Your task to perform on an android device: toggle javascript in the chrome app Image 0: 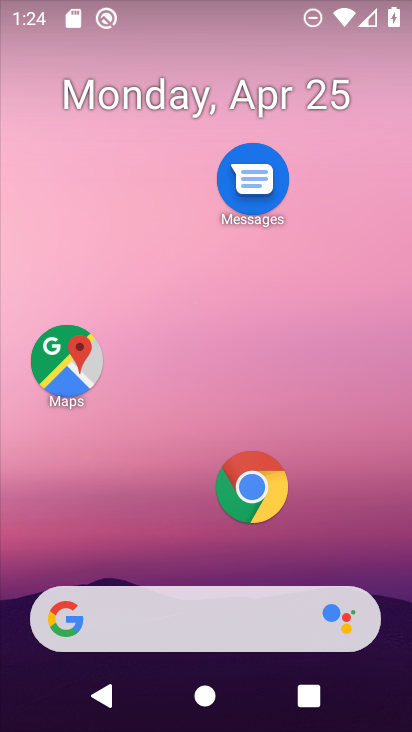
Step 0: drag from (270, 472) to (380, 10)
Your task to perform on an android device: toggle javascript in the chrome app Image 1: 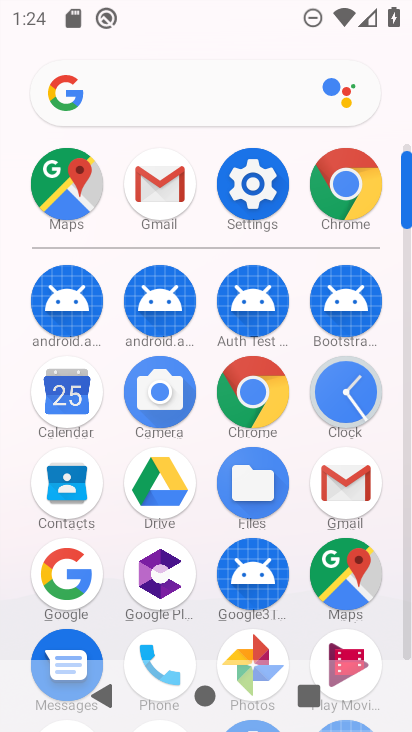
Step 1: click (274, 382)
Your task to perform on an android device: toggle javascript in the chrome app Image 2: 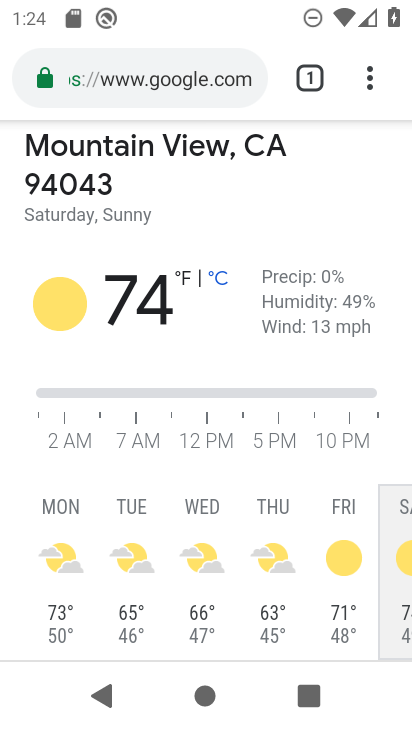
Step 2: press home button
Your task to perform on an android device: toggle javascript in the chrome app Image 3: 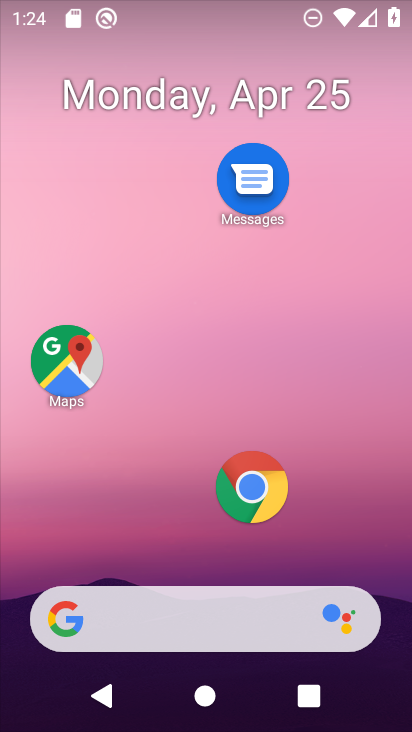
Step 3: drag from (363, 576) to (288, 0)
Your task to perform on an android device: toggle javascript in the chrome app Image 4: 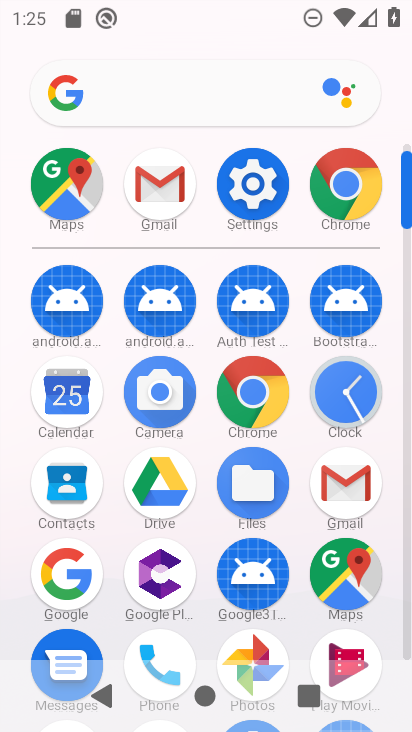
Step 4: click (272, 388)
Your task to perform on an android device: toggle javascript in the chrome app Image 5: 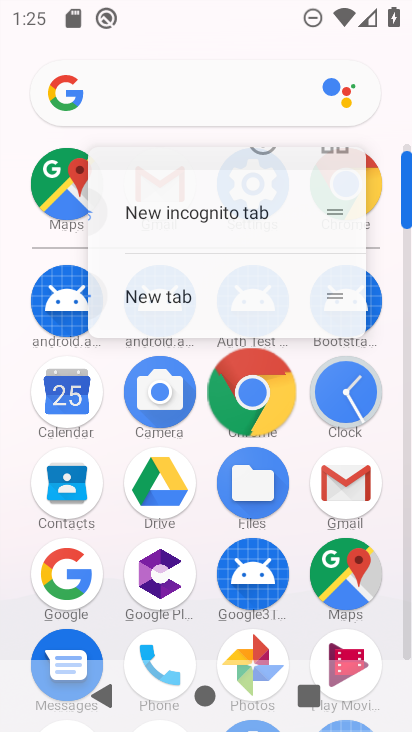
Step 5: click (272, 388)
Your task to perform on an android device: toggle javascript in the chrome app Image 6: 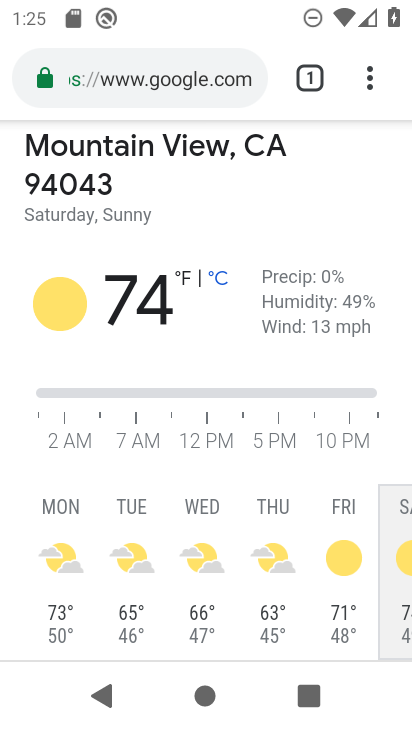
Step 6: drag from (366, 91) to (221, 561)
Your task to perform on an android device: toggle javascript in the chrome app Image 7: 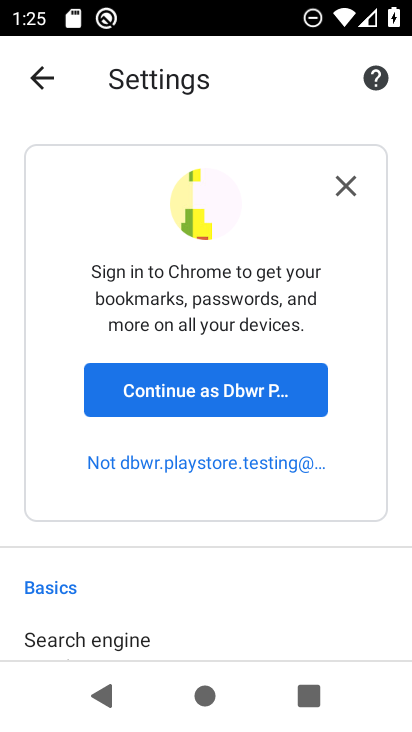
Step 7: drag from (339, 621) to (401, 250)
Your task to perform on an android device: toggle javascript in the chrome app Image 8: 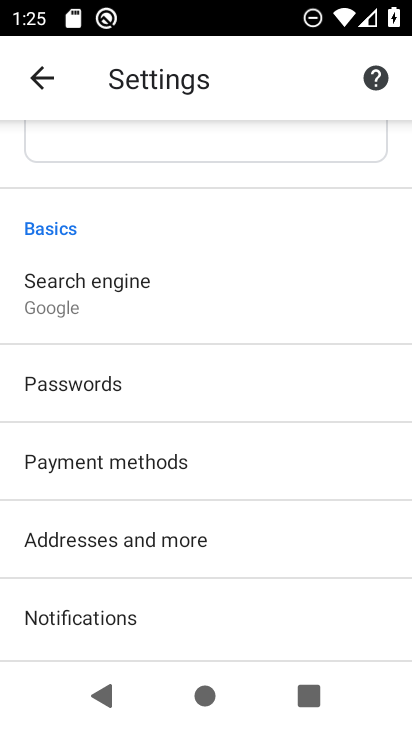
Step 8: drag from (392, 291) to (378, 409)
Your task to perform on an android device: toggle javascript in the chrome app Image 9: 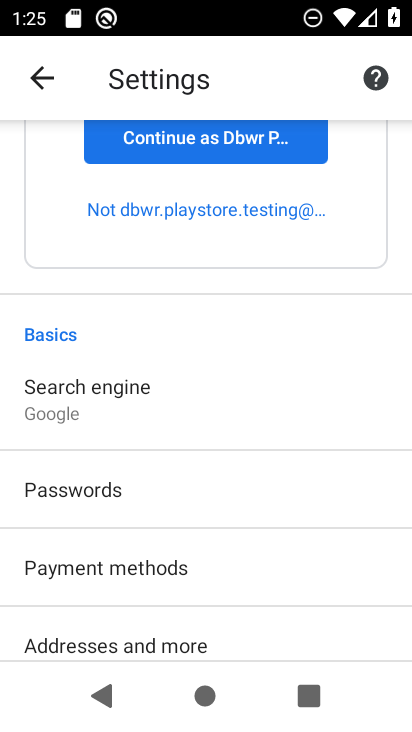
Step 9: drag from (198, 637) to (252, 254)
Your task to perform on an android device: toggle javascript in the chrome app Image 10: 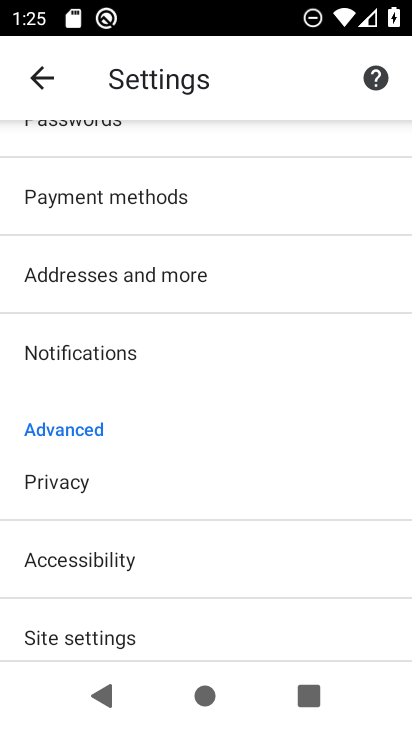
Step 10: click (145, 641)
Your task to perform on an android device: toggle javascript in the chrome app Image 11: 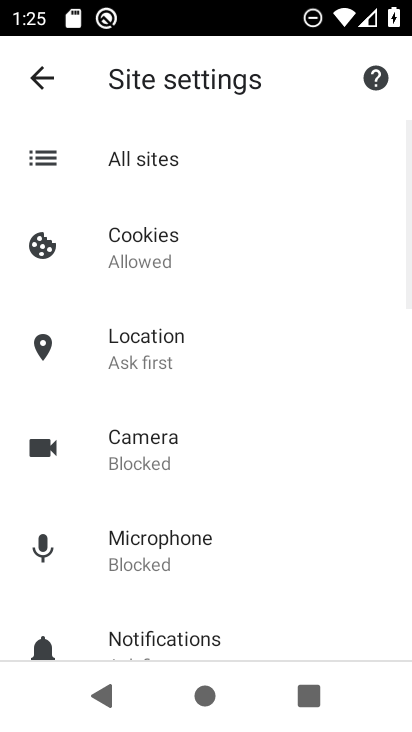
Step 11: drag from (148, 582) to (199, 124)
Your task to perform on an android device: toggle javascript in the chrome app Image 12: 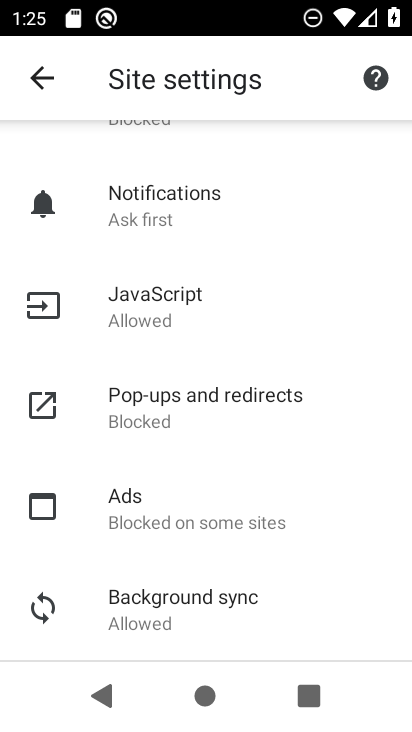
Step 12: click (220, 326)
Your task to perform on an android device: toggle javascript in the chrome app Image 13: 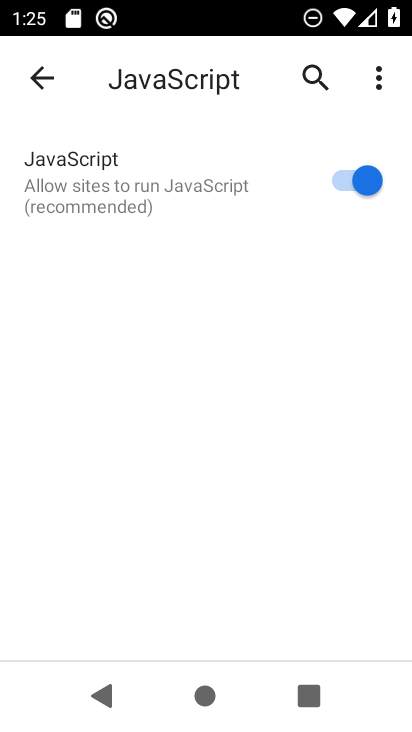
Step 13: click (340, 183)
Your task to perform on an android device: toggle javascript in the chrome app Image 14: 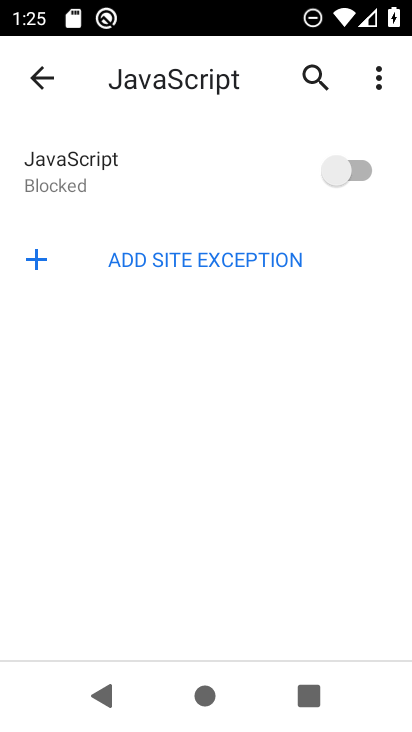
Step 14: task complete